Your task to perform on an android device: Open Maps and search for coffee Image 0: 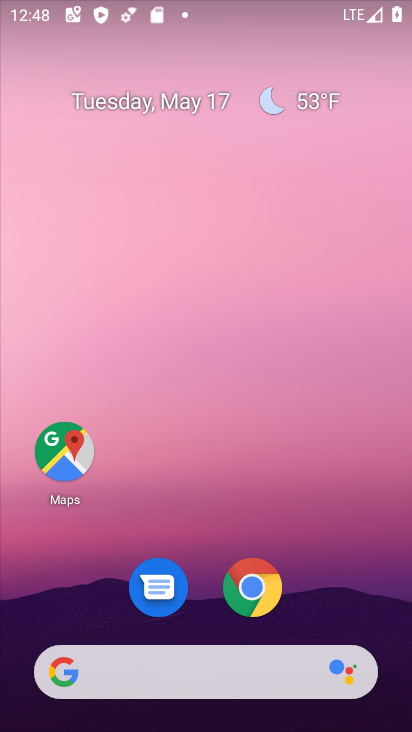
Step 0: drag from (192, 636) to (176, 0)
Your task to perform on an android device: Open Maps and search for coffee Image 1: 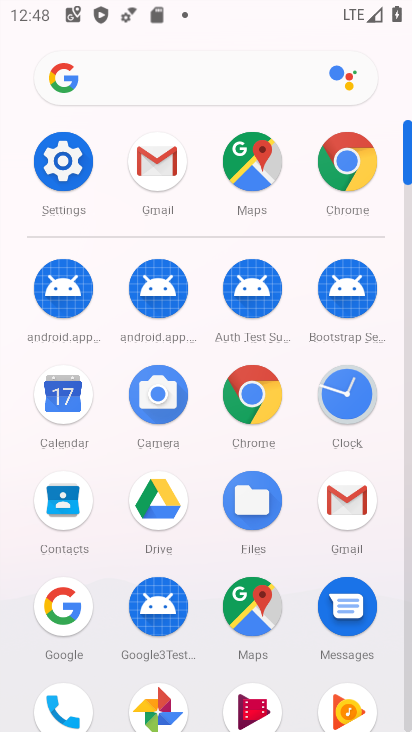
Step 1: click (243, 580)
Your task to perform on an android device: Open Maps and search for coffee Image 2: 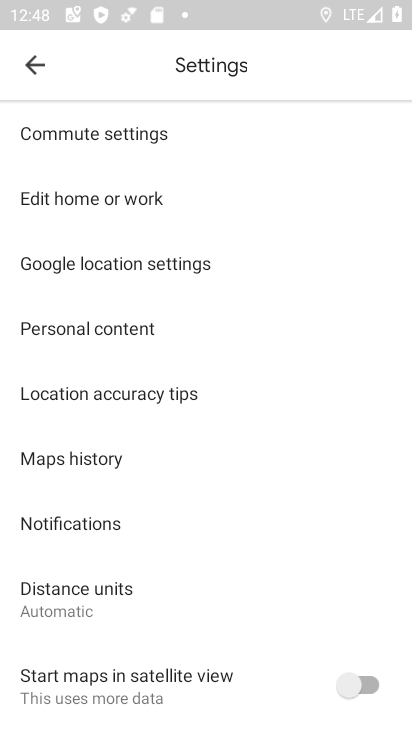
Step 2: click (28, 56)
Your task to perform on an android device: Open Maps and search for coffee Image 3: 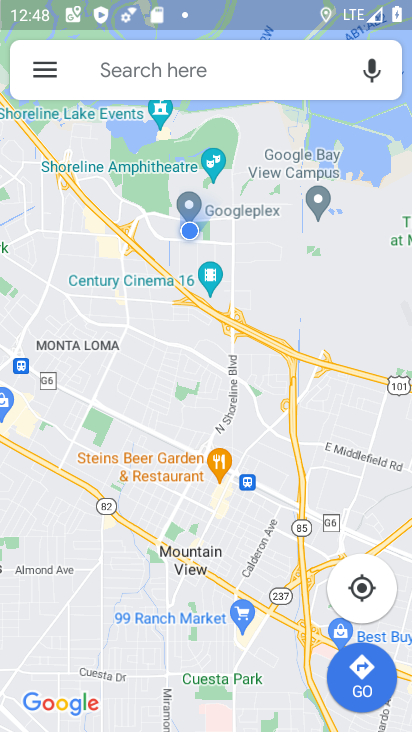
Step 3: click (141, 75)
Your task to perform on an android device: Open Maps and search for coffee Image 4: 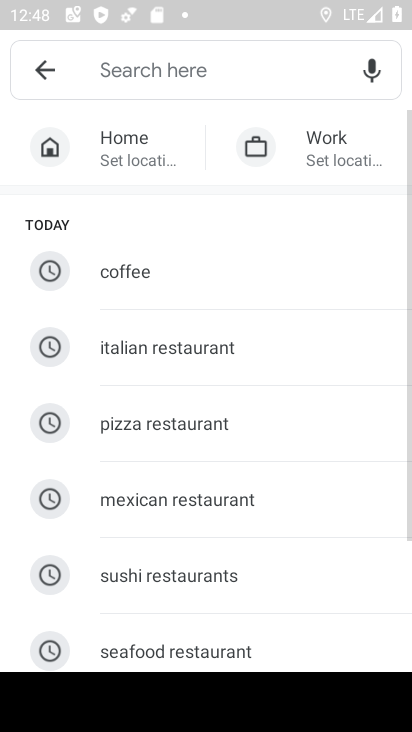
Step 4: click (150, 261)
Your task to perform on an android device: Open Maps and search for coffee Image 5: 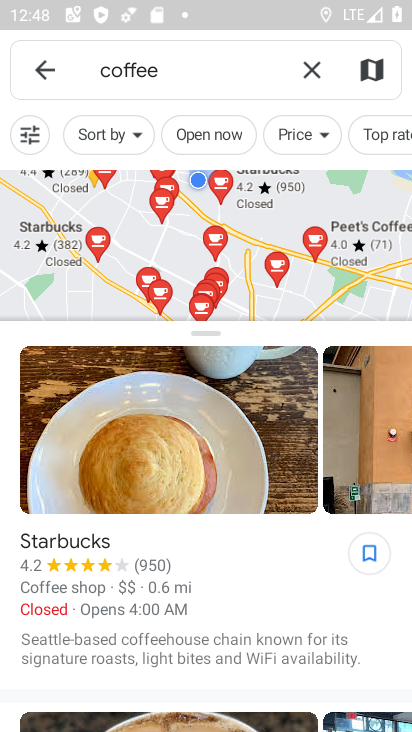
Step 5: task complete